Your task to perform on an android device: Open calendar and show me the second week of next month Image 0: 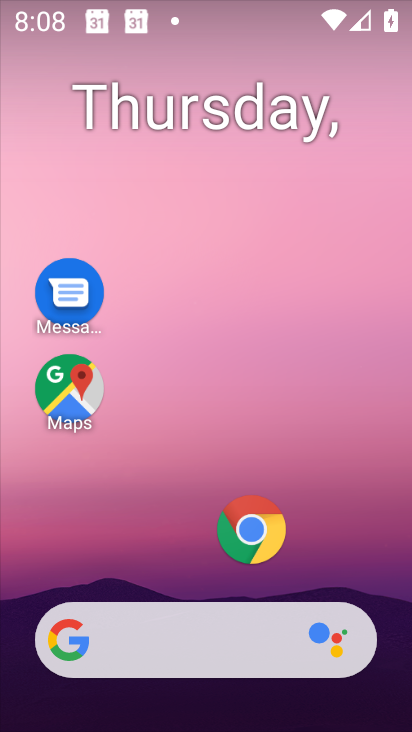
Step 0: click (232, 128)
Your task to perform on an android device: Open calendar and show me the second week of next month Image 1: 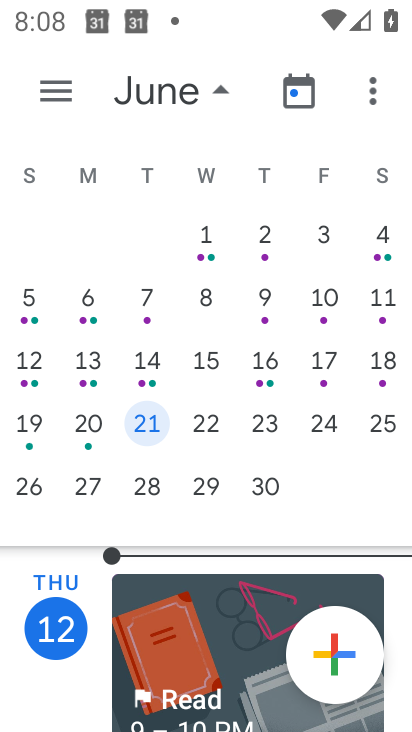
Step 1: click (270, 301)
Your task to perform on an android device: Open calendar and show me the second week of next month Image 2: 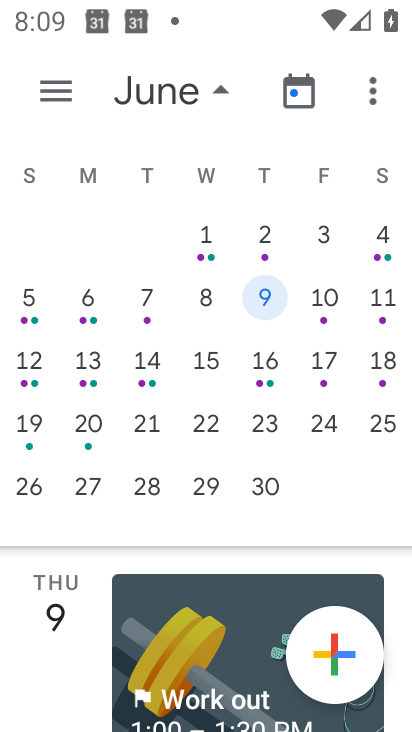
Step 2: task complete